Your task to perform on an android device: open sync settings in chrome Image 0: 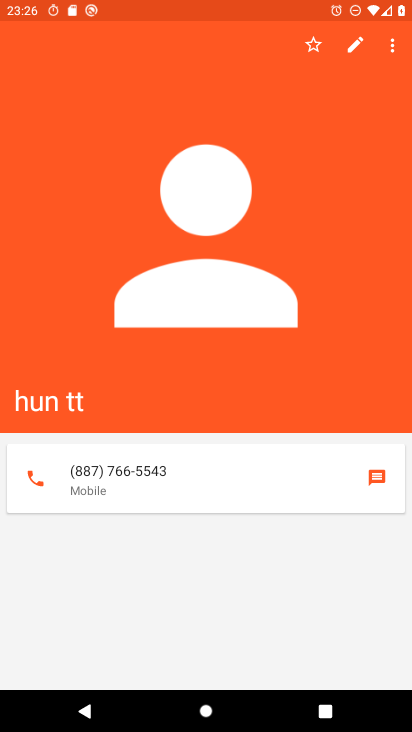
Step 0: press home button
Your task to perform on an android device: open sync settings in chrome Image 1: 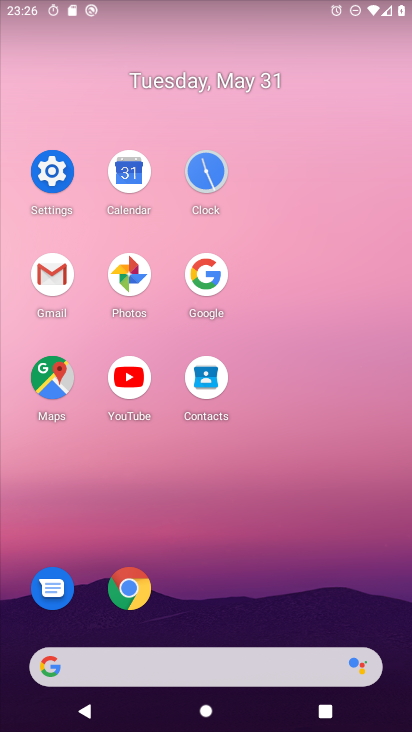
Step 1: click (135, 592)
Your task to perform on an android device: open sync settings in chrome Image 2: 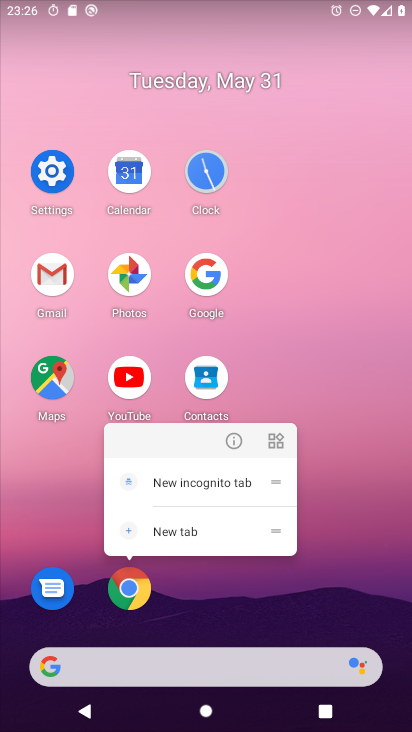
Step 2: click (125, 590)
Your task to perform on an android device: open sync settings in chrome Image 3: 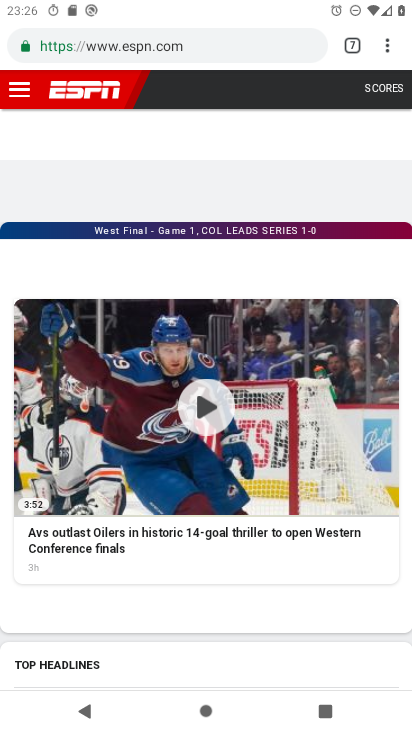
Step 3: click (385, 42)
Your task to perform on an android device: open sync settings in chrome Image 4: 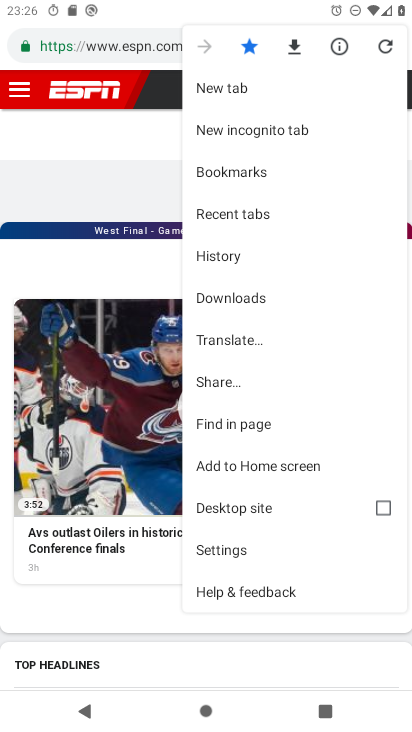
Step 4: click (304, 550)
Your task to perform on an android device: open sync settings in chrome Image 5: 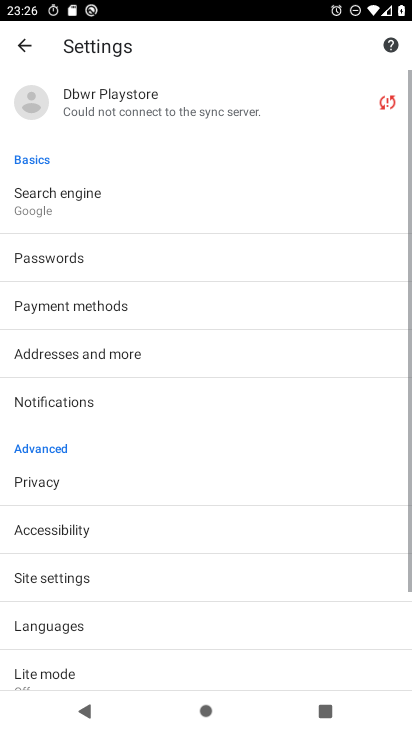
Step 5: drag from (304, 550) to (293, 172)
Your task to perform on an android device: open sync settings in chrome Image 6: 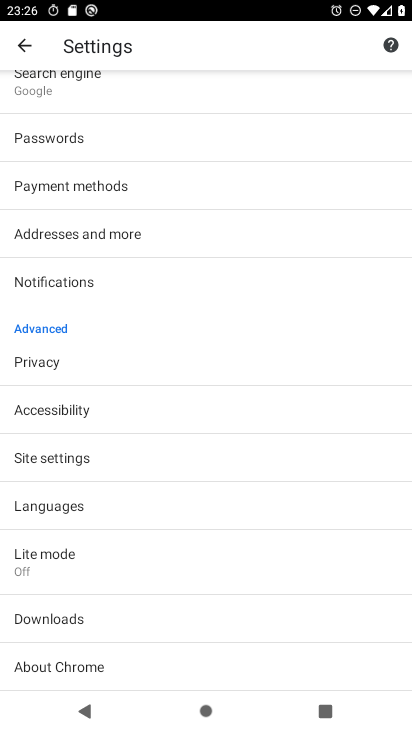
Step 6: click (142, 461)
Your task to perform on an android device: open sync settings in chrome Image 7: 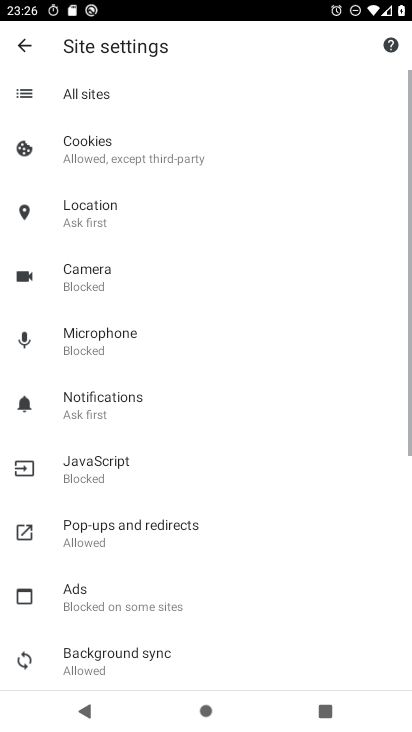
Step 7: drag from (154, 439) to (229, 147)
Your task to perform on an android device: open sync settings in chrome Image 8: 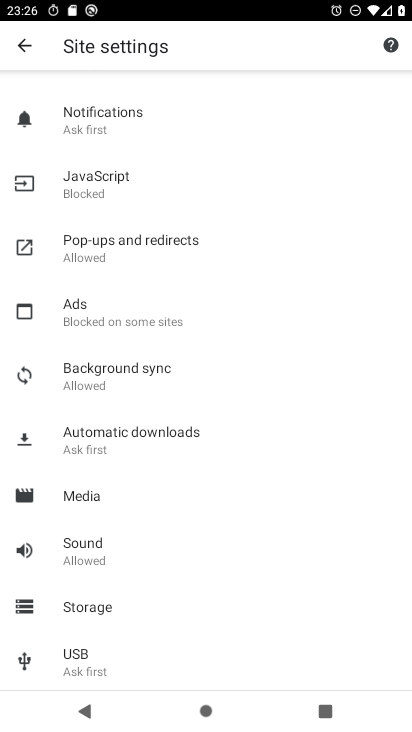
Step 8: click (168, 365)
Your task to perform on an android device: open sync settings in chrome Image 9: 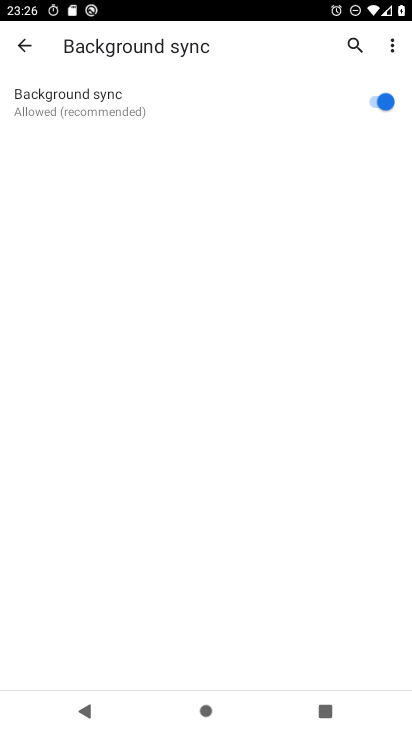
Step 9: task complete